Your task to perform on an android device: change keyboard looks Image 0: 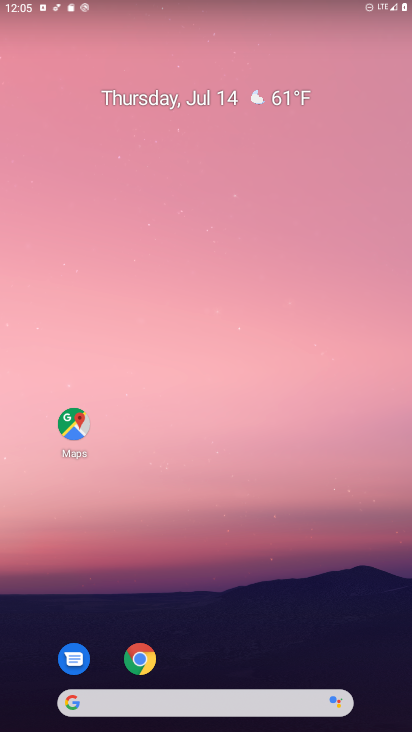
Step 0: drag from (332, 631) to (292, 108)
Your task to perform on an android device: change keyboard looks Image 1: 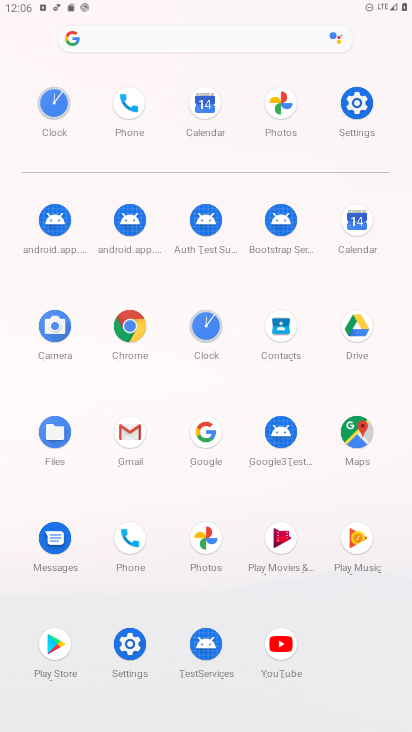
Step 1: click (130, 644)
Your task to perform on an android device: change keyboard looks Image 2: 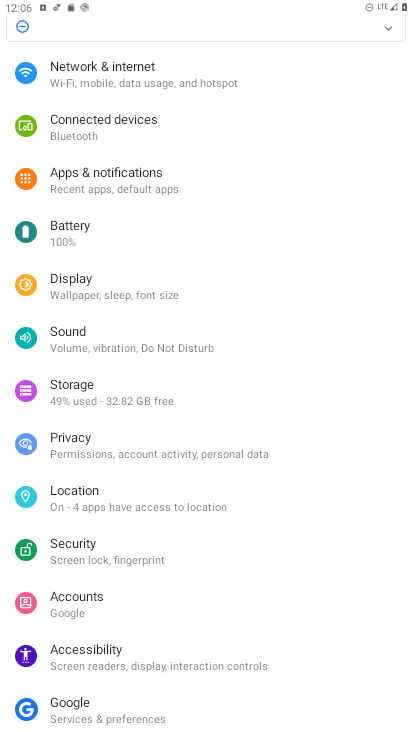
Step 2: drag from (334, 647) to (306, 297)
Your task to perform on an android device: change keyboard looks Image 3: 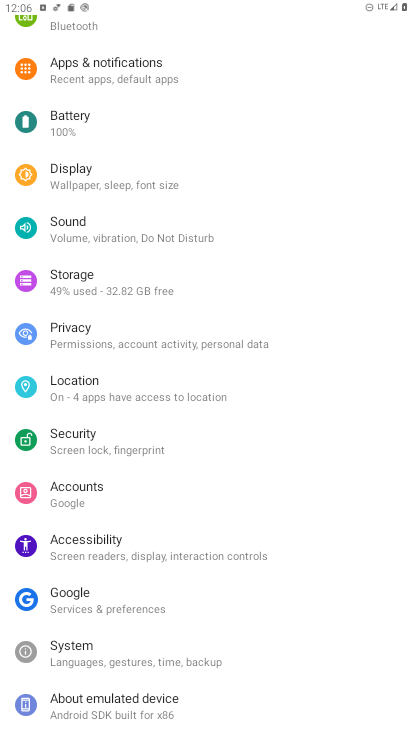
Step 3: click (71, 653)
Your task to perform on an android device: change keyboard looks Image 4: 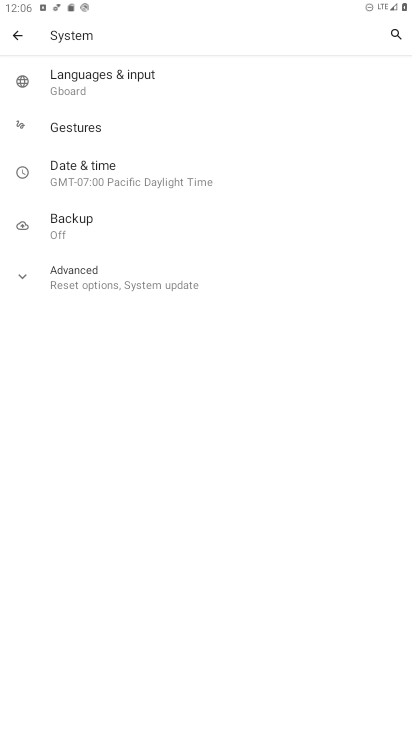
Step 4: click (71, 78)
Your task to perform on an android device: change keyboard looks Image 5: 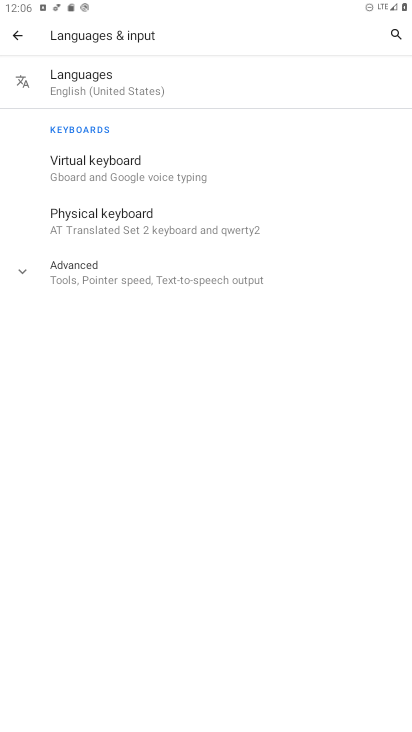
Step 5: click (95, 211)
Your task to perform on an android device: change keyboard looks Image 6: 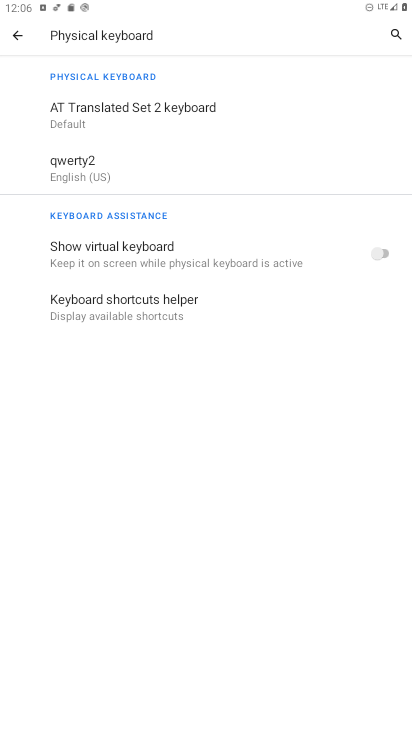
Step 6: click (75, 109)
Your task to perform on an android device: change keyboard looks Image 7: 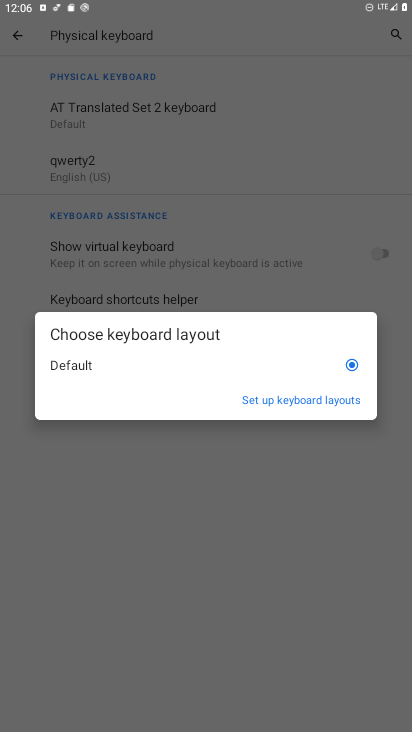
Step 7: click (305, 403)
Your task to perform on an android device: change keyboard looks Image 8: 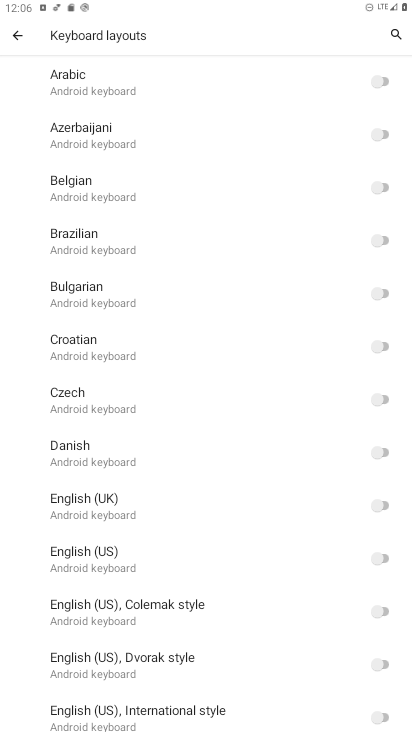
Step 8: drag from (290, 646) to (254, 199)
Your task to perform on an android device: change keyboard looks Image 9: 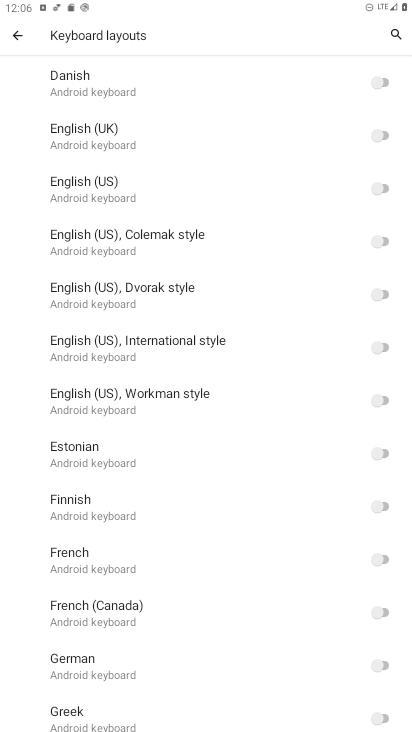
Step 9: click (384, 560)
Your task to perform on an android device: change keyboard looks Image 10: 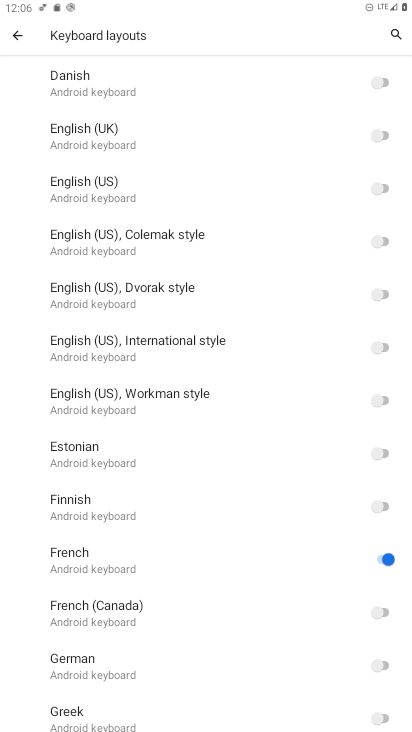
Step 10: task complete